Your task to perform on an android device: open chrome and create a bookmark for the current page Image 0: 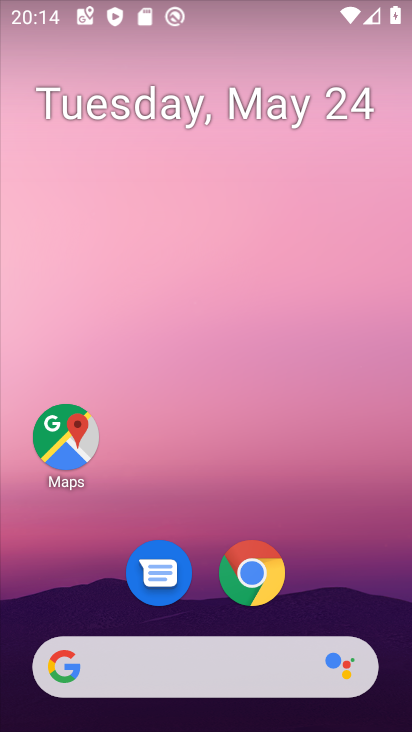
Step 0: click (253, 565)
Your task to perform on an android device: open chrome and create a bookmark for the current page Image 1: 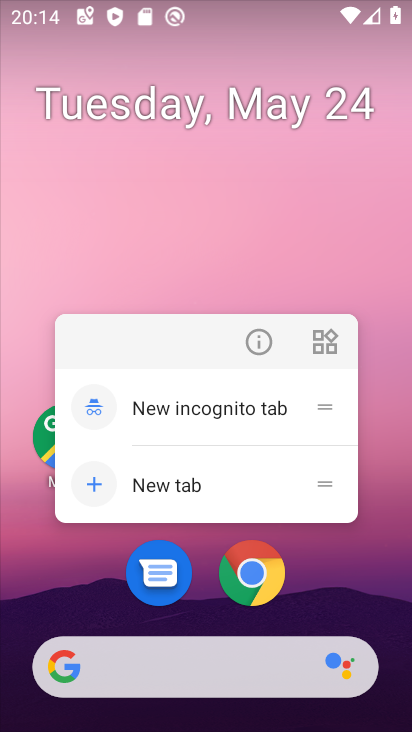
Step 1: click (245, 554)
Your task to perform on an android device: open chrome and create a bookmark for the current page Image 2: 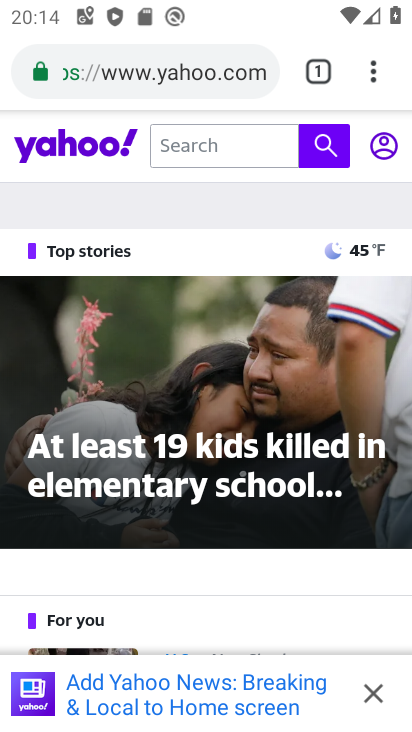
Step 2: click (382, 71)
Your task to perform on an android device: open chrome and create a bookmark for the current page Image 3: 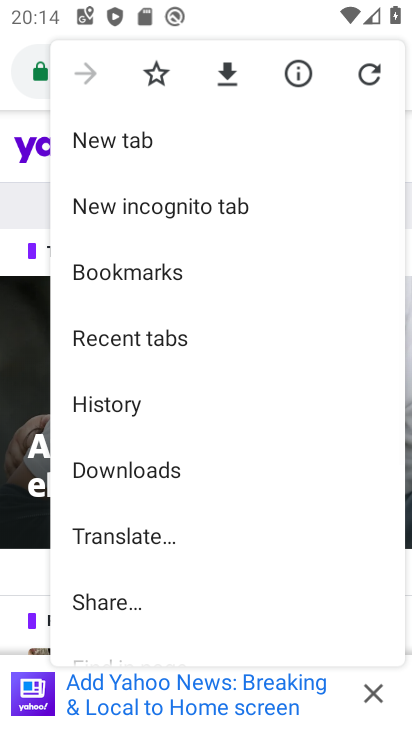
Step 3: click (162, 76)
Your task to perform on an android device: open chrome and create a bookmark for the current page Image 4: 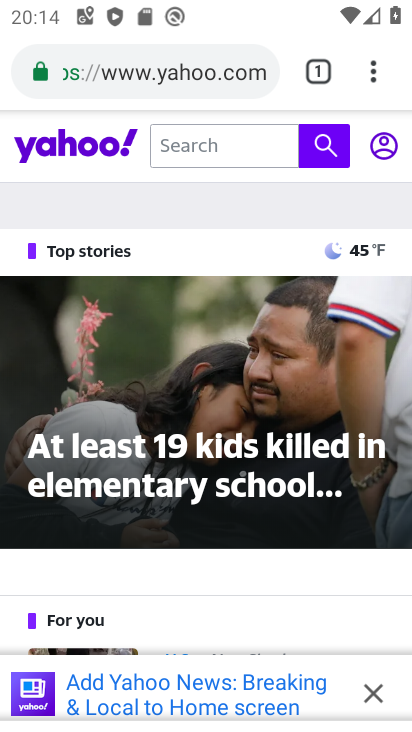
Step 4: task complete